Your task to perform on an android device: Open Yahoo.com Image 0: 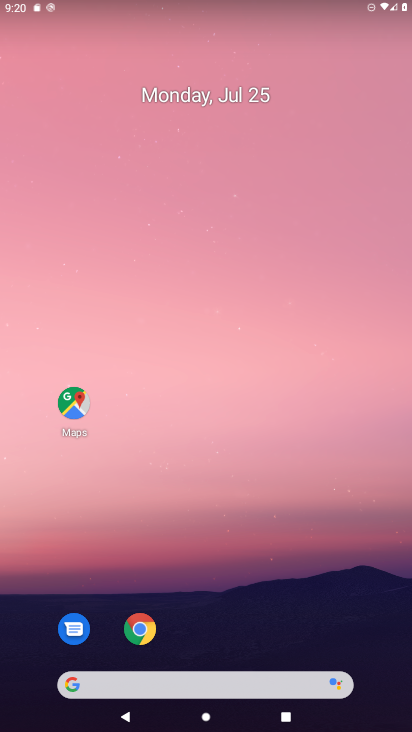
Step 0: click (140, 633)
Your task to perform on an android device: Open Yahoo.com Image 1: 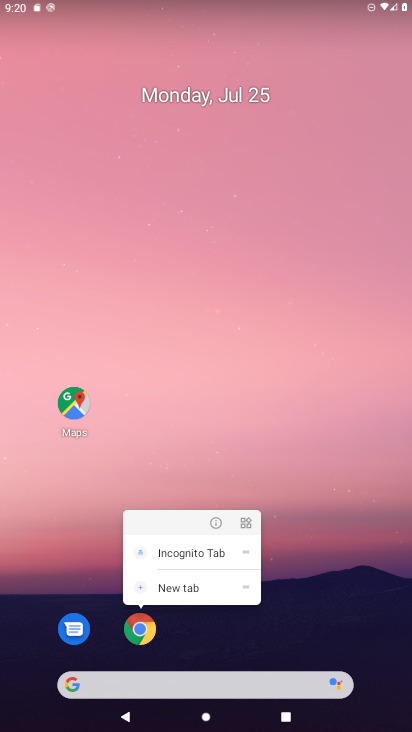
Step 1: click (140, 633)
Your task to perform on an android device: Open Yahoo.com Image 2: 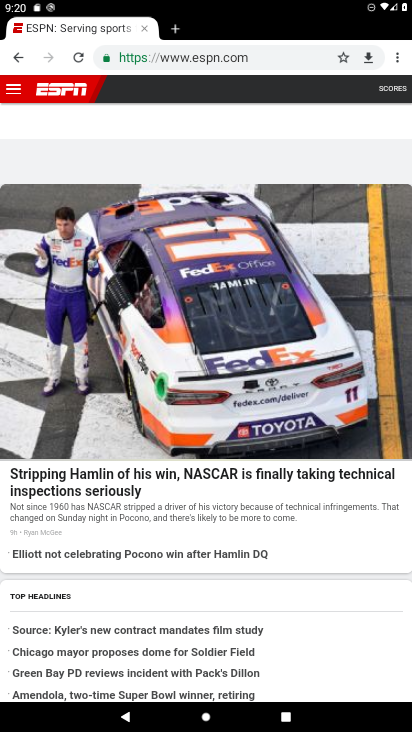
Step 2: click (188, 58)
Your task to perform on an android device: Open Yahoo.com Image 3: 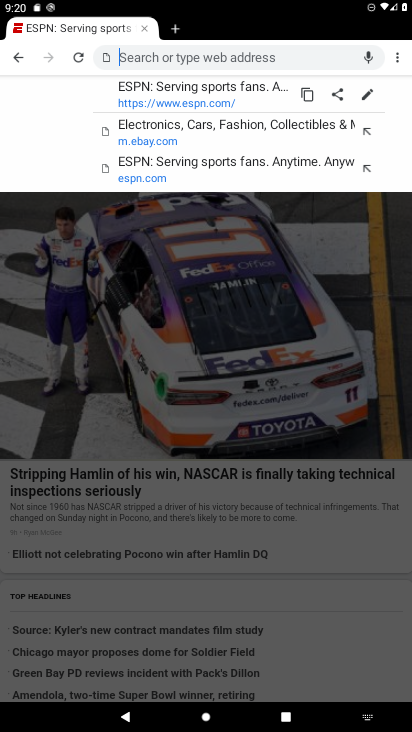
Step 3: type "yahoo.com"
Your task to perform on an android device: Open Yahoo.com Image 4: 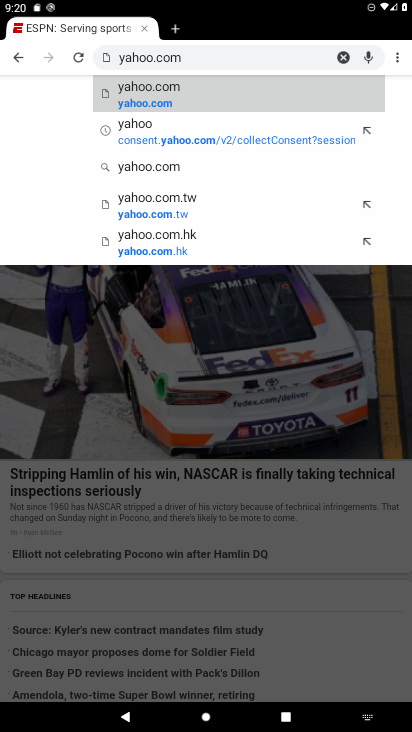
Step 4: click (139, 106)
Your task to perform on an android device: Open Yahoo.com Image 5: 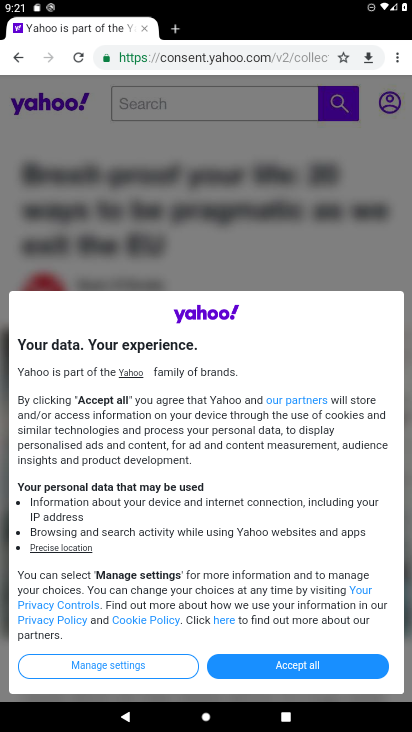
Step 5: task complete